Your task to perform on an android device: turn on airplane mode Image 0: 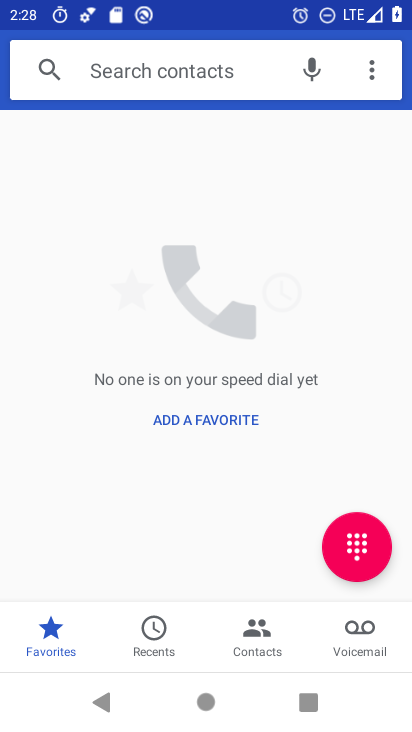
Step 0: drag from (289, 563) to (316, 3)
Your task to perform on an android device: turn on airplane mode Image 1: 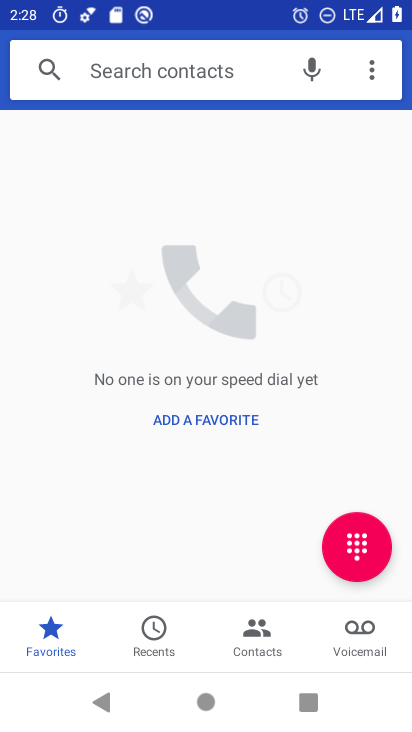
Step 1: press home button
Your task to perform on an android device: turn on airplane mode Image 2: 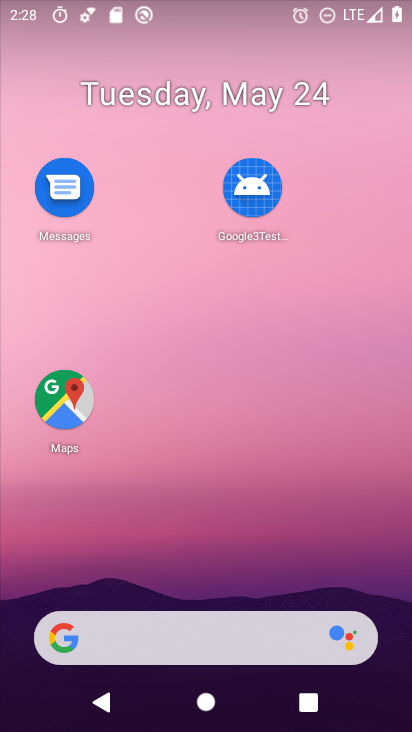
Step 2: drag from (205, 573) to (162, 95)
Your task to perform on an android device: turn on airplane mode Image 3: 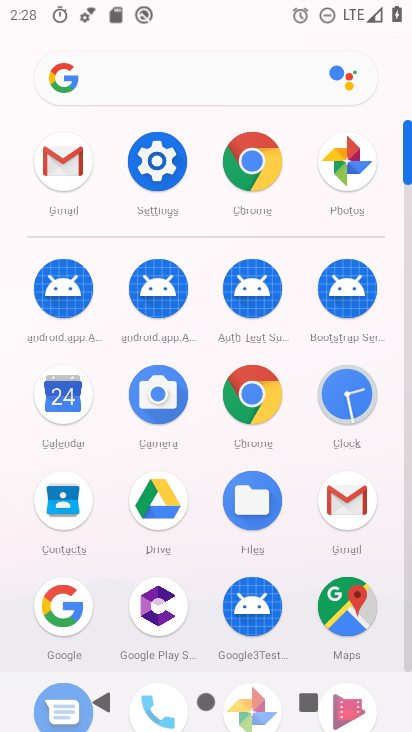
Step 3: click (150, 163)
Your task to perform on an android device: turn on airplane mode Image 4: 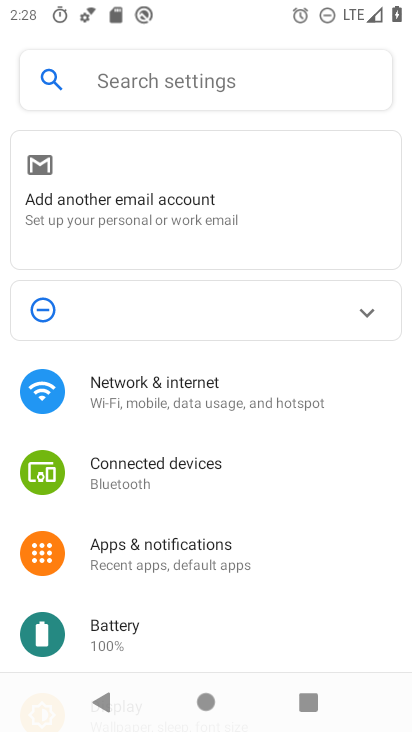
Step 4: drag from (189, 380) to (189, 222)
Your task to perform on an android device: turn on airplane mode Image 5: 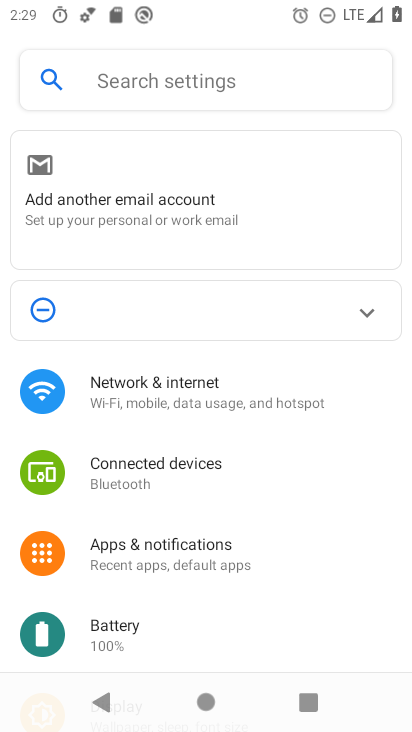
Step 5: drag from (164, 641) to (164, 428)
Your task to perform on an android device: turn on airplane mode Image 6: 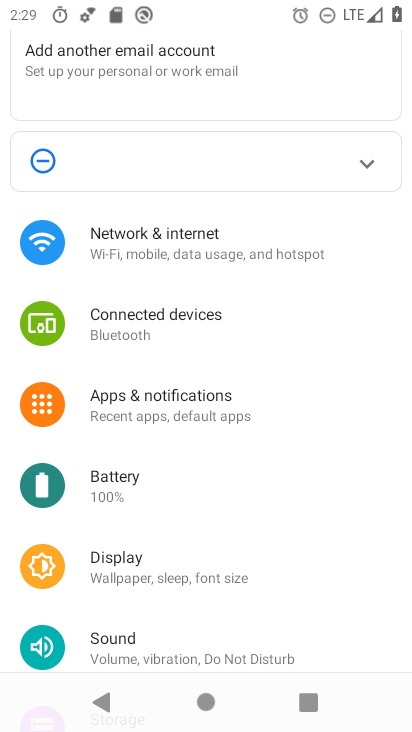
Step 6: drag from (133, 639) to (137, 313)
Your task to perform on an android device: turn on airplane mode Image 7: 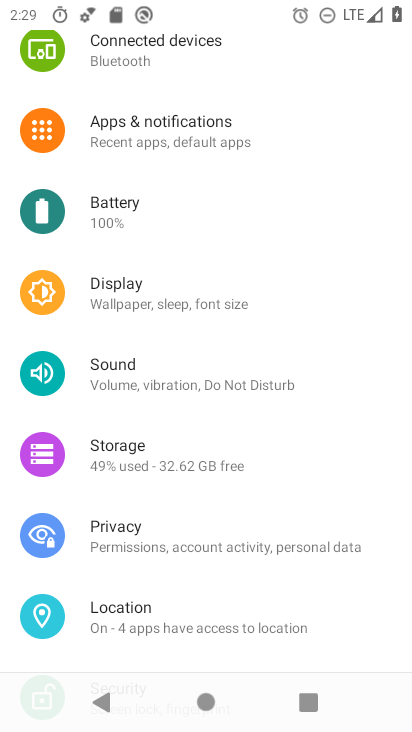
Step 7: click (117, 405)
Your task to perform on an android device: turn on airplane mode Image 8: 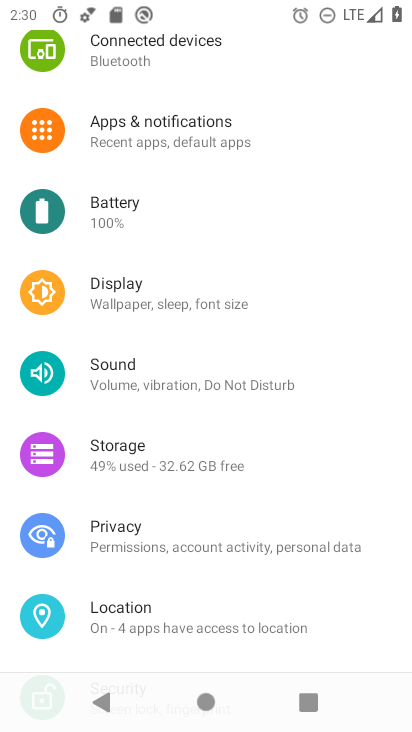
Step 8: drag from (155, 225) to (155, 705)
Your task to perform on an android device: turn on airplane mode Image 9: 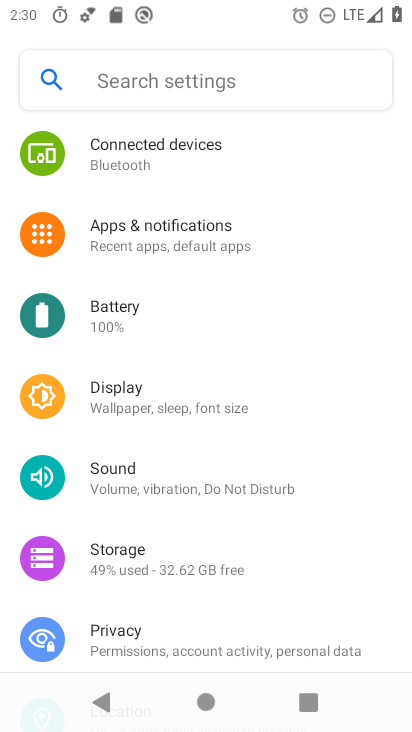
Step 9: click (197, 710)
Your task to perform on an android device: turn on airplane mode Image 10: 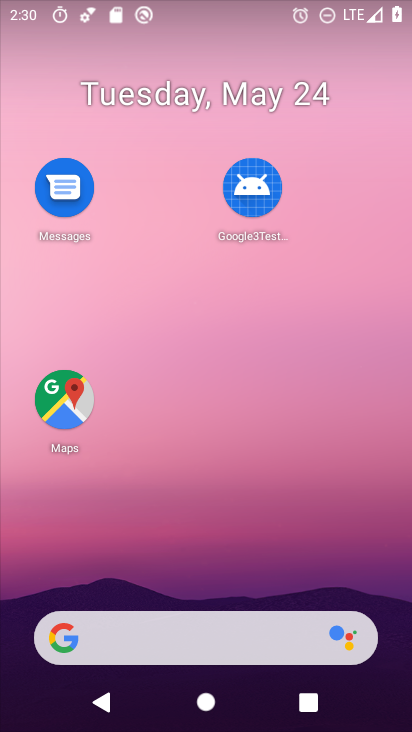
Step 10: drag from (183, 585) to (169, 5)
Your task to perform on an android device: turn on airplane mode Image 11: 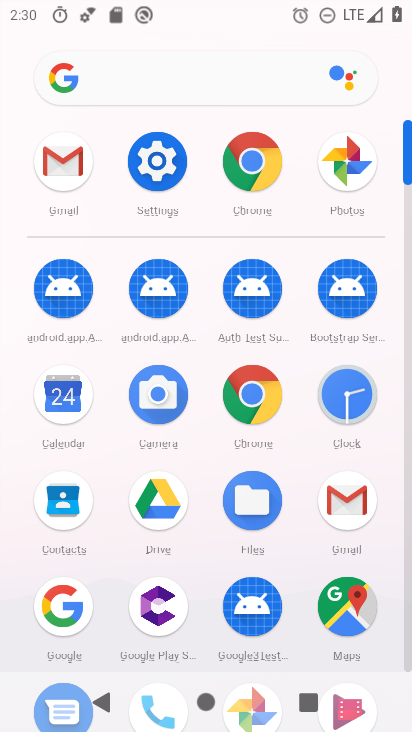
Step 11: click (155, 151)
Your task to perform on an android device: turn on airplane mode Image 12: 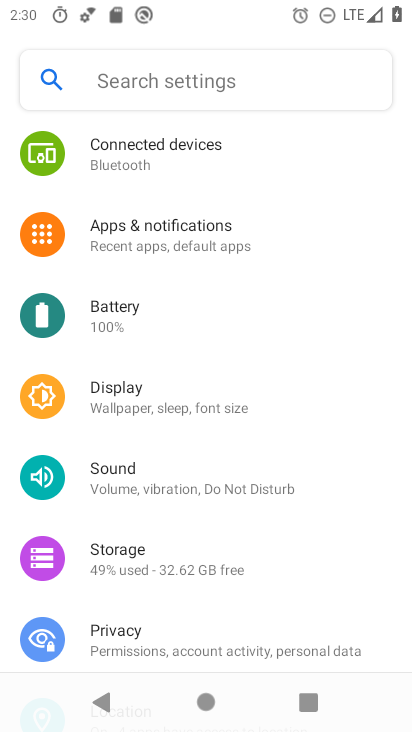
Step 12: drag from (161, 190) to (170, 549)
Your task to perform on an android device: turn on airplane mode Image 13: 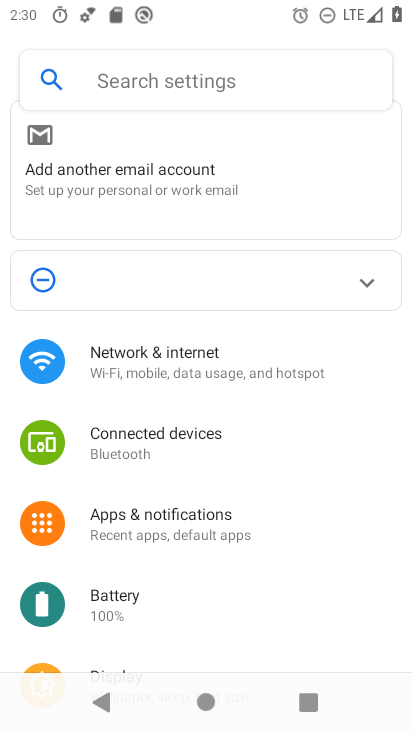
Step 13: click (122, 363)
Your task to perform on an android device: turn on airplane mode Image 14: 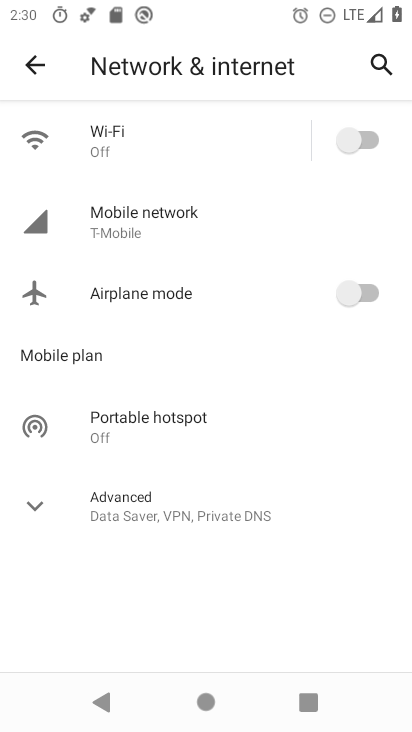
Step 14: click (370, 293)
Your task to perform on an android device: turn on airplane mode Image 15: 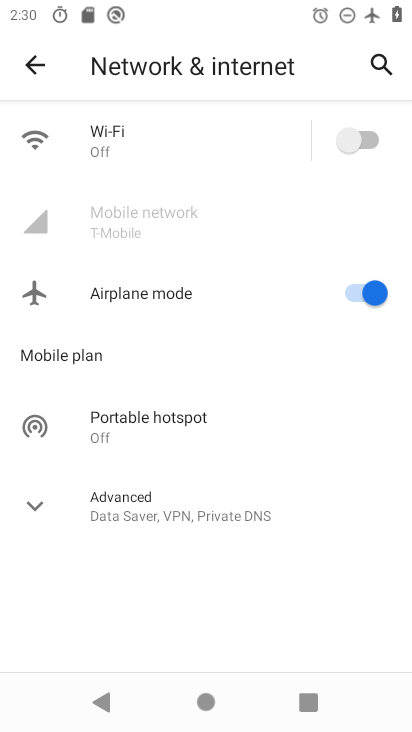
Step 15: task complete